Your task to perform on an android device: Open Google Maps and go to "Timeline" Image 0: 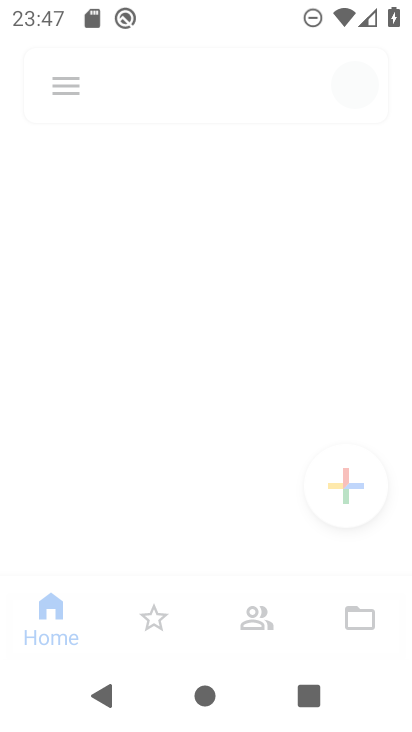
Step 0: click (181, 175)
Your task to perform on an android device: Open Google Maps and go to "Timeline" Image 1: 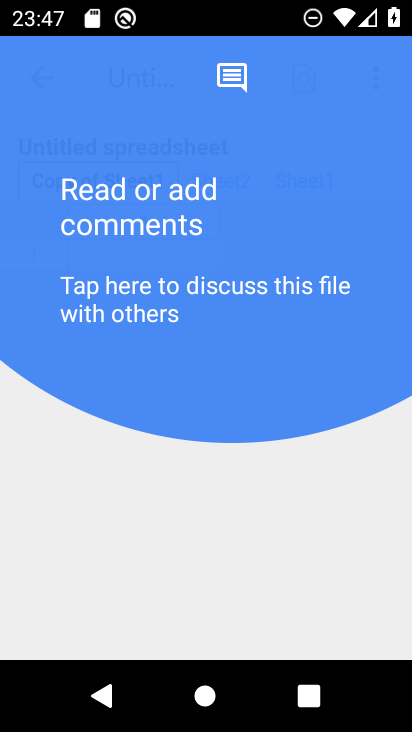
Step 1: press home button
Your task to perform on an android device: Open Google Maps and go to "Timeline" Image 2: 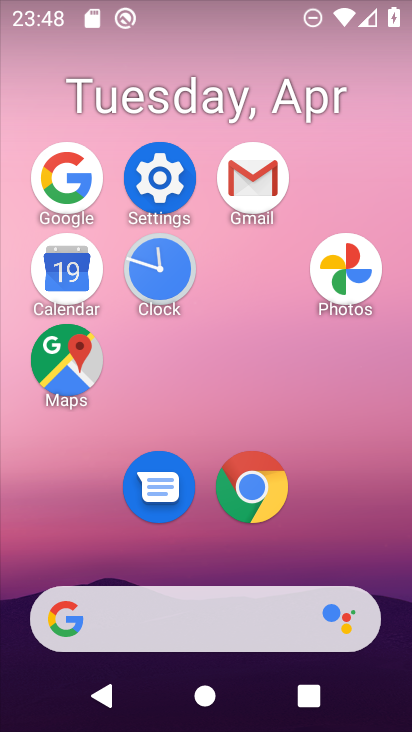
Step 2: click (85, 346)
Your task to perform on an android device: Open Google Maps and go to "Timeline" Image 3: 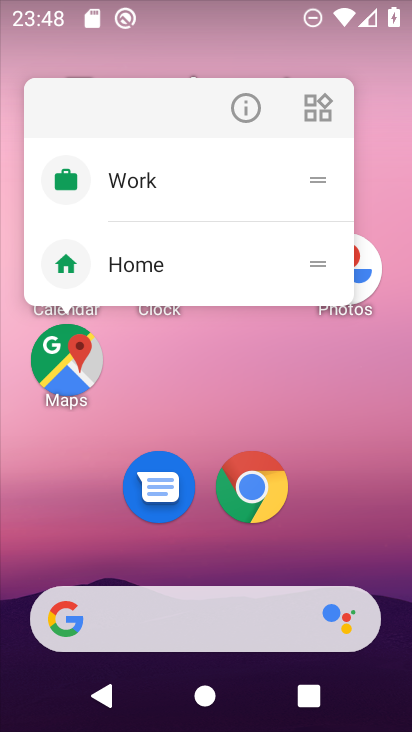
Step 3: click (92, 366)
Your task to perform on an android device: Open Google Maps and go to "Timeline" Image 4: 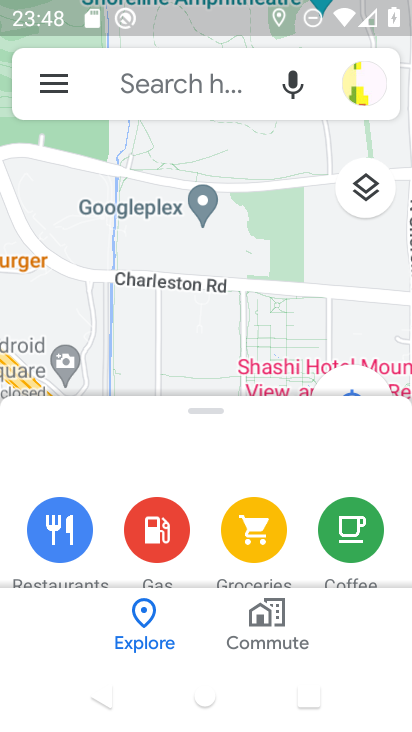
Step 4: click (70, 85)
Your task to perform on an android device: Open Google Maps and go to "Timeline" Image 5: 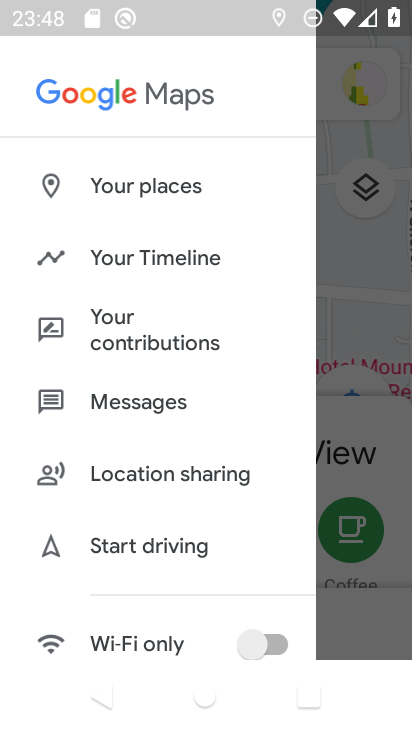
Step 5: click (142, 260)
Your task to perform on an android device: Open Google Maps and go to "Timeline" Image 6: 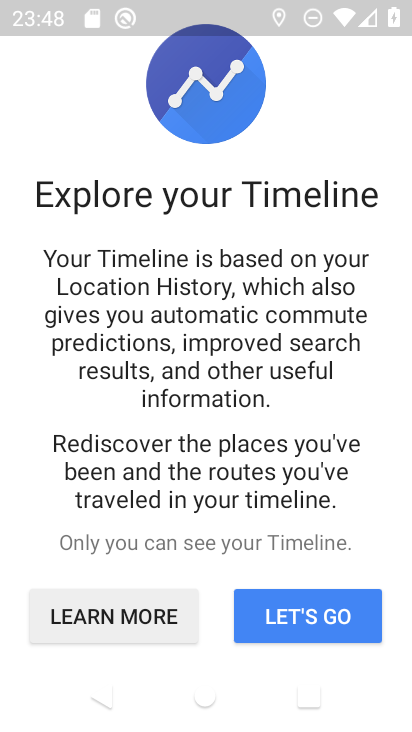
Step 6: click (353, 625)
Your task to perform on an android device: Open Google Maps and go to "Timeline" Image 7: 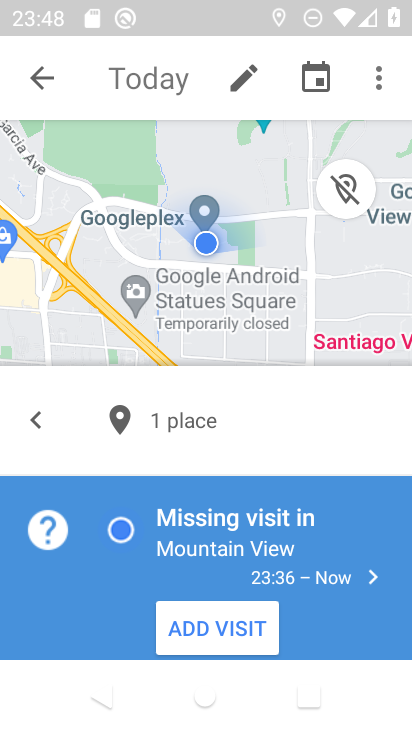
Step 7: task complete